Your task to perform on an android device: toggle priority inbox in the gmail app Image 0: 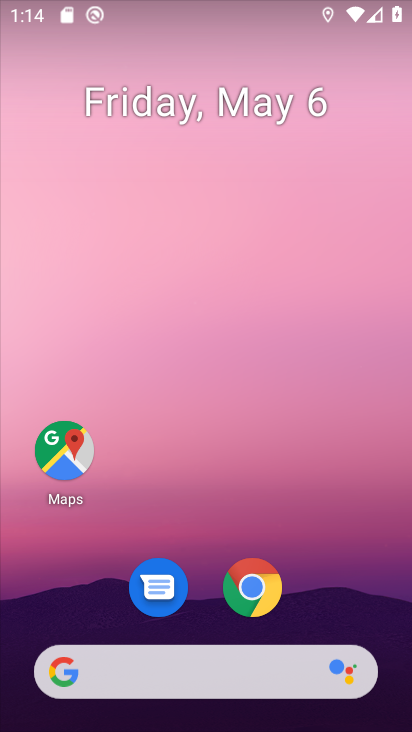
Step 0: drag from (332, 623) to (331, 11)
Your task to perform on an android device: toggle priority inbox in the gmail app Image 1: 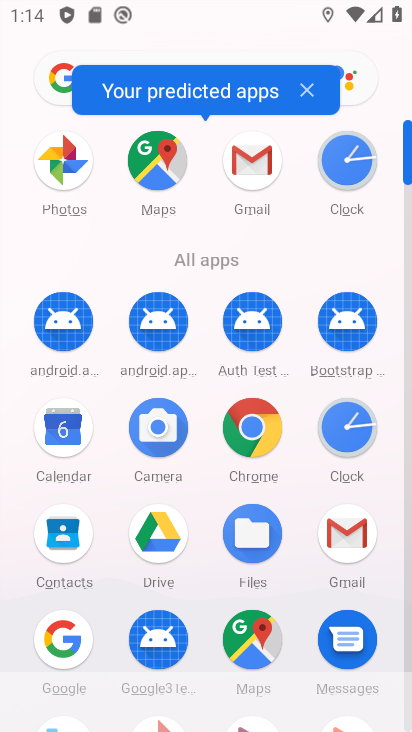
Step 1: click (265, 163)
Your task to perform on an android device: toggle priority inbox in the gmail app Image 2: 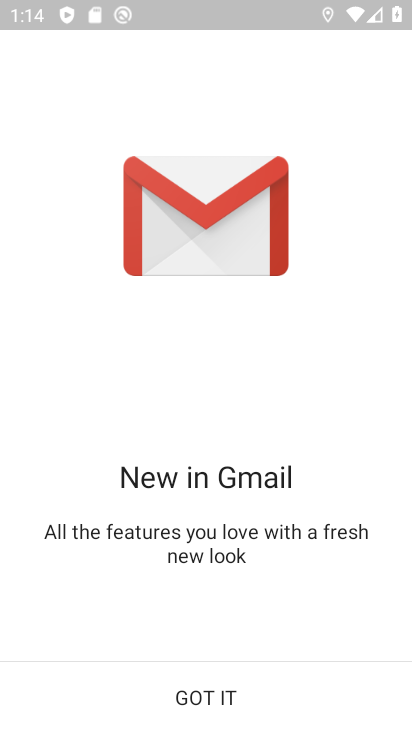
Step 2: click (218, 710)
Your task to perform on an android device: toggle priority inbox in the gmail app Image 3: 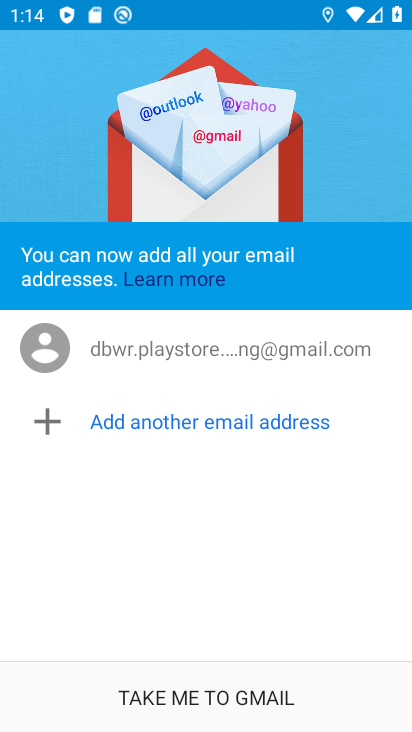
Step 3: click (219, 699)
Your task to perform on an android device: toggle priority inbox in the gmail app Image 4: 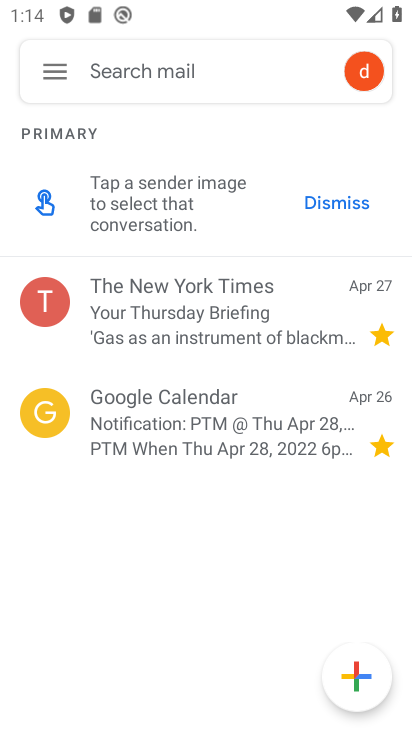
Step 4: click (50, 70)
Your task to perform on an android device: toggle priority inbox in the gmail app Image 5: 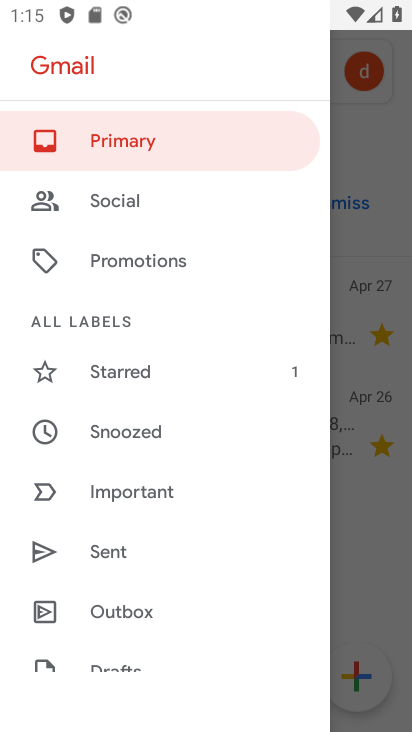
Step 5: drag from (160, 613) to (157, 130)
Your task to perform on an android device: toggle priority inbox in the gmail app Image 6: 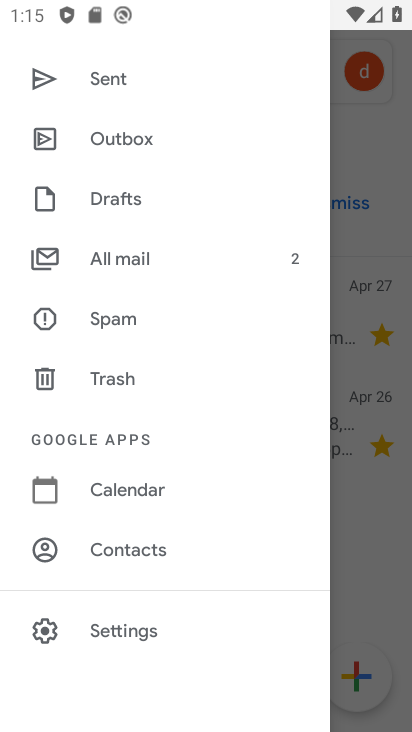
Step 6: click (138, 632)
Your task to perform on an android device: toggle priority inbox in the gmail app Image 7: 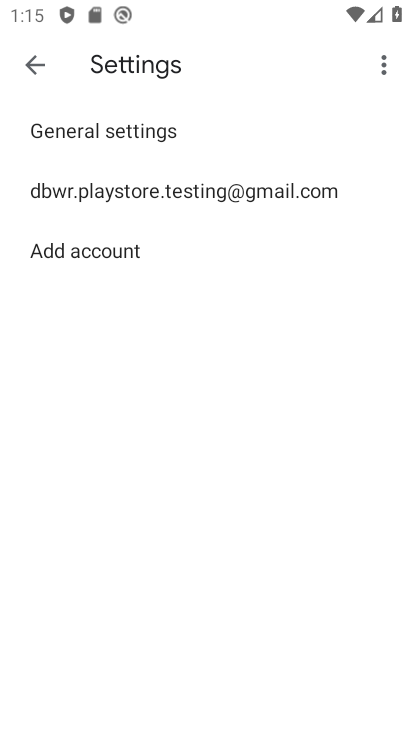
Step 7: click (134, 193)
Your task to perform on an android device: toggle priority inbox in the gmail app Image 8: 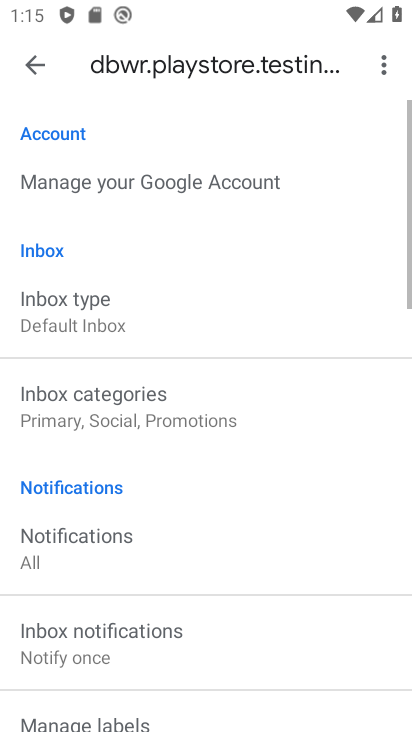
Step 8: drag from (139, 676) to (131, 230)
Your task to perform on an android device: toggle priority inbox in the gmail app Image 9: 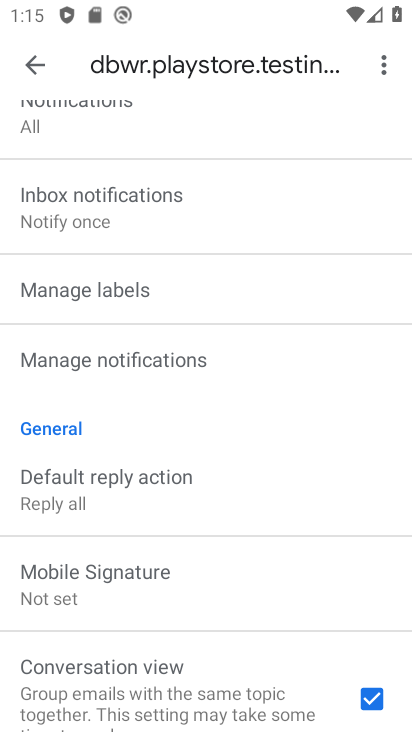
Step 9: drag from (190, 450) to (186, 660)
Your task to perform on an android device: toggle priority inbox in the gmail app Image 10: 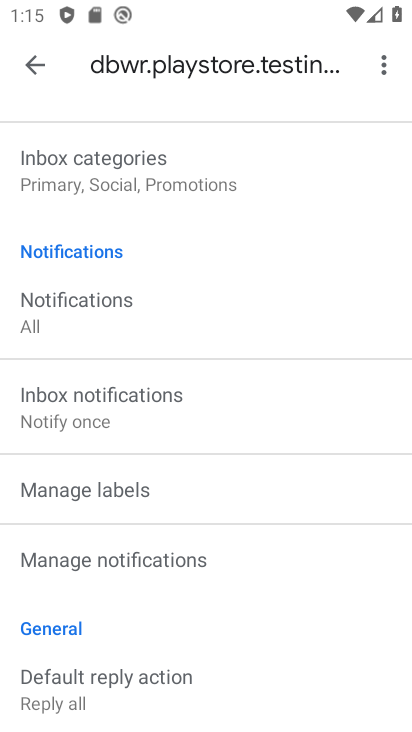
Step 10: click (74, 184)
Your task to perform on an android device: toggle priority inbox in the gmail app Image 11: 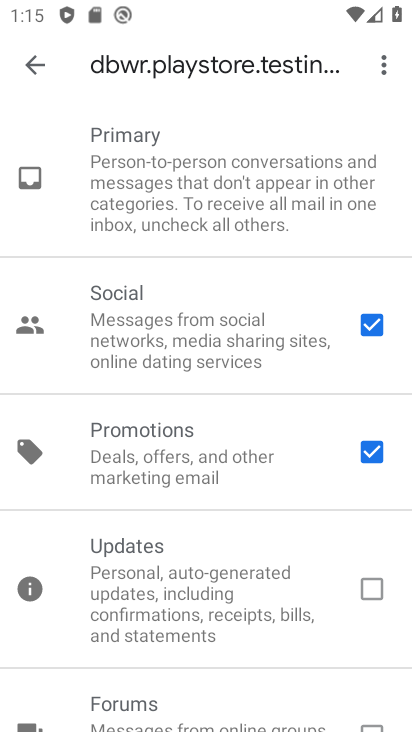
Step 11: click (38, 72)
Your task to perform on an android device: toggle priority inbox in the gmail app Image 12: 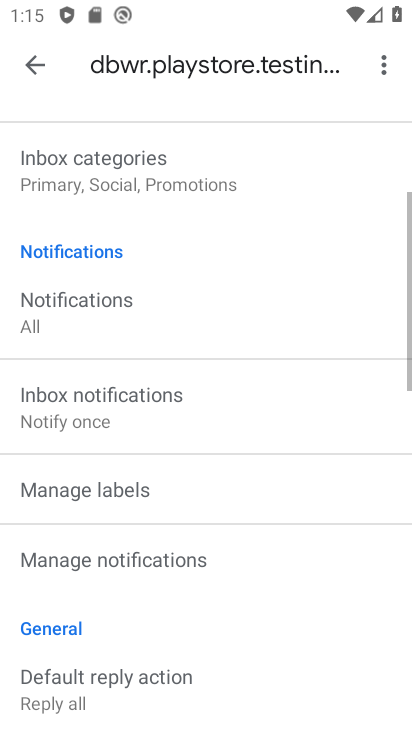
Step 12: drag from (126, 208) to (140, 505)
Your task to perform on an android device: toggle priority inbox in the gmail app Image 13: 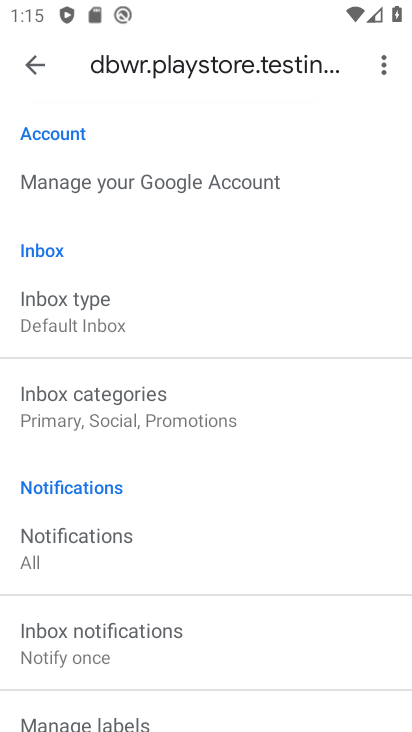
Step 13: click (74, 326)
Your task to perform on an android device: toggle priority inbox in the gmail app Image 14: 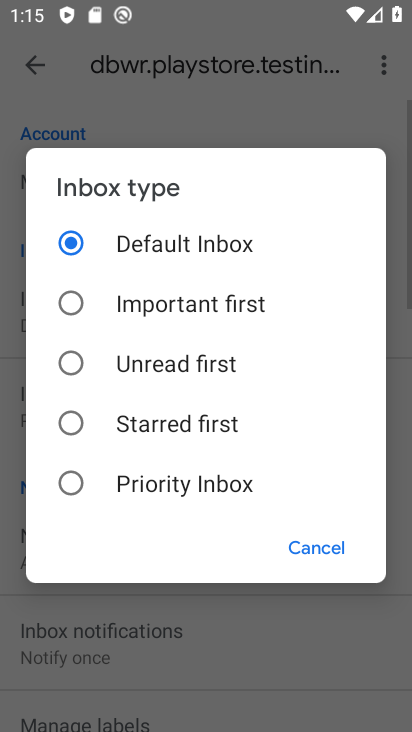
Step 14: click (141, 483)
Your task to perform on an android device: toggle priority inbox in the gmail app Image 15: 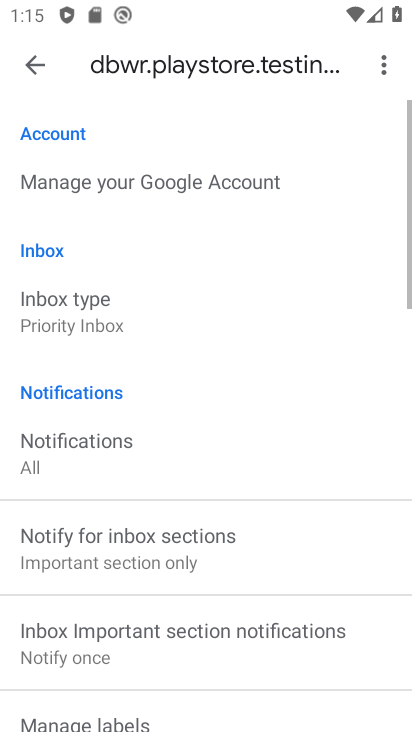
Step 15: task complete